Your task to perform on an android device: toggle sleep mode Image 0: 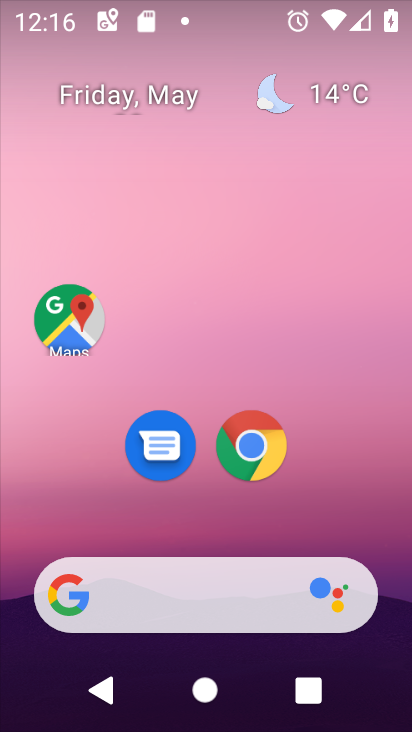
Step 0: drag from (204, 539) to (278, 175)
Your task to perform on an android device: toggle sleep mode Image 1: 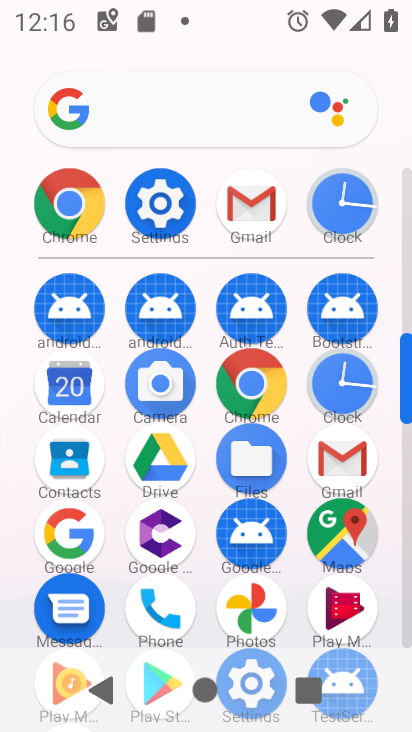
Step 1: click (159, 202)
Your task to perform on an android device: toggle sleep mode Image 2: 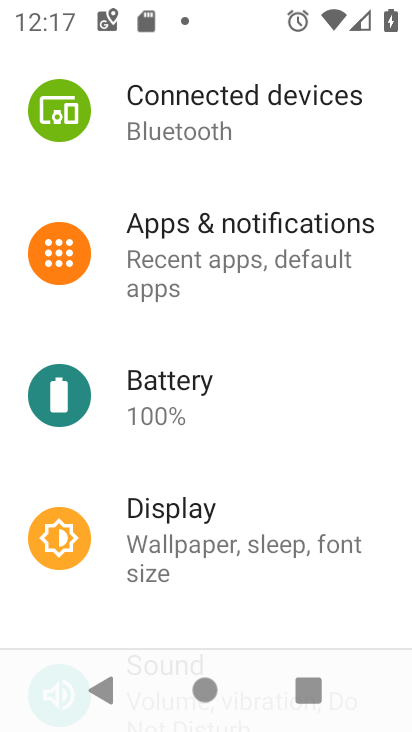
Step 2: task complete